Your task to perform on an android device: uninstall "Microsoft Authenticator" Image 0: 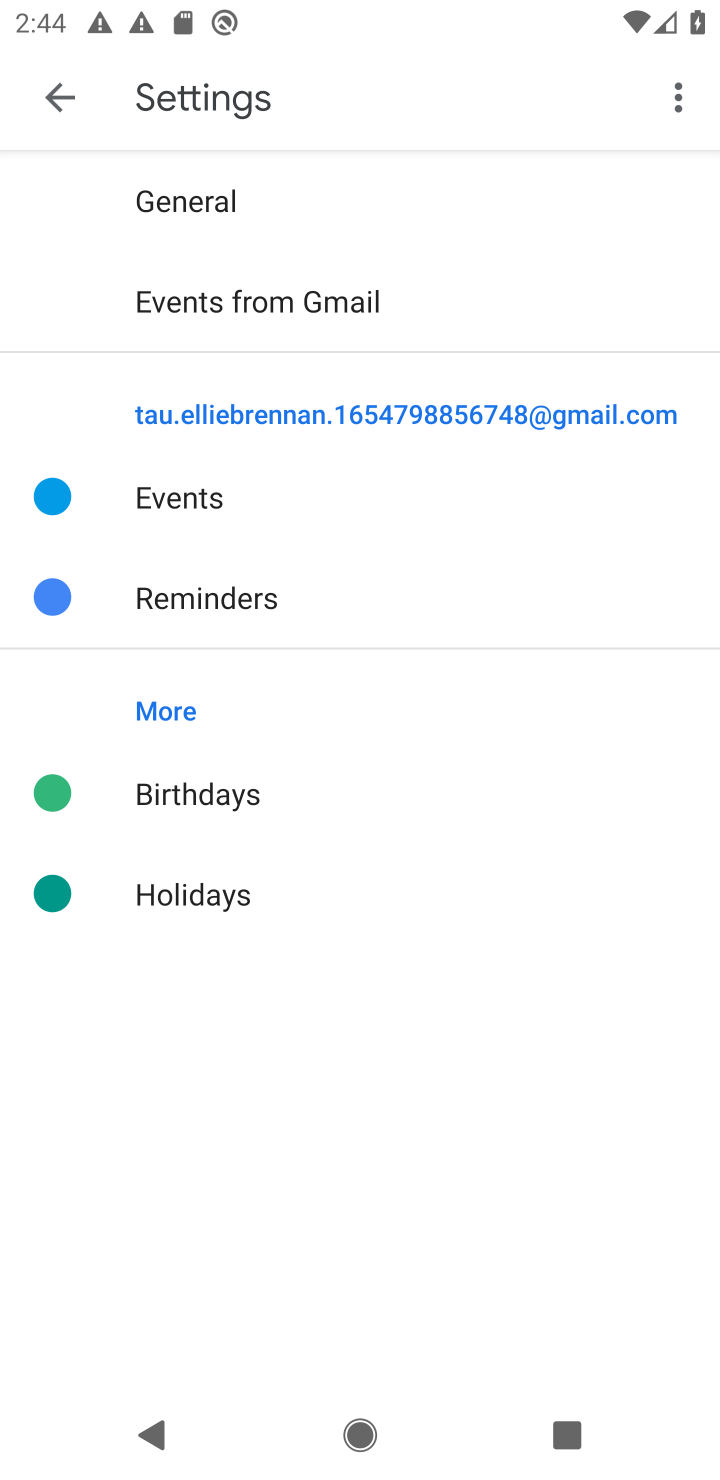
Step 0: press home button
Your task to perform on an android device: uninstall "Microsoft Authenticator" Image 1: 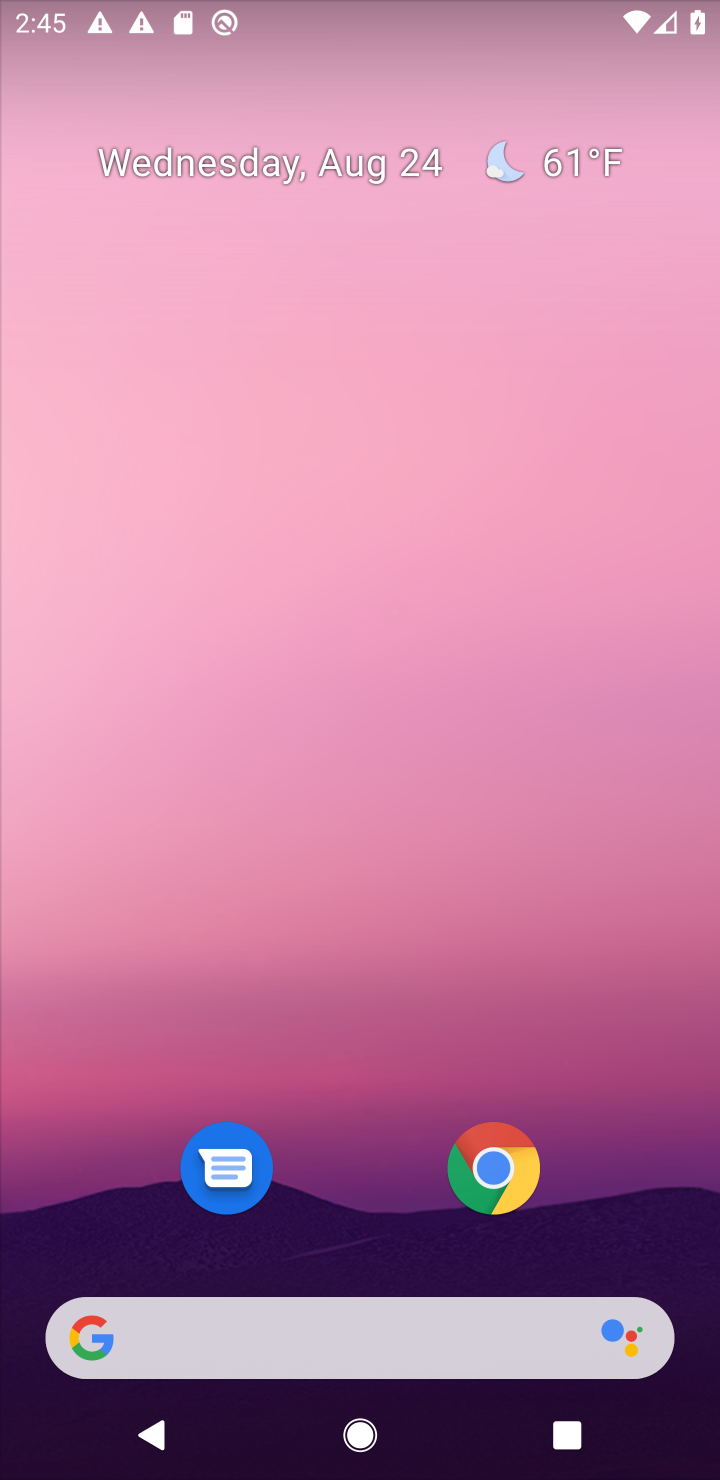
Step 1: drag from (671, 1223) to (608, 133)
Your task to perform on an android device: uninstall "Microsoft Authenticator" Image 2: 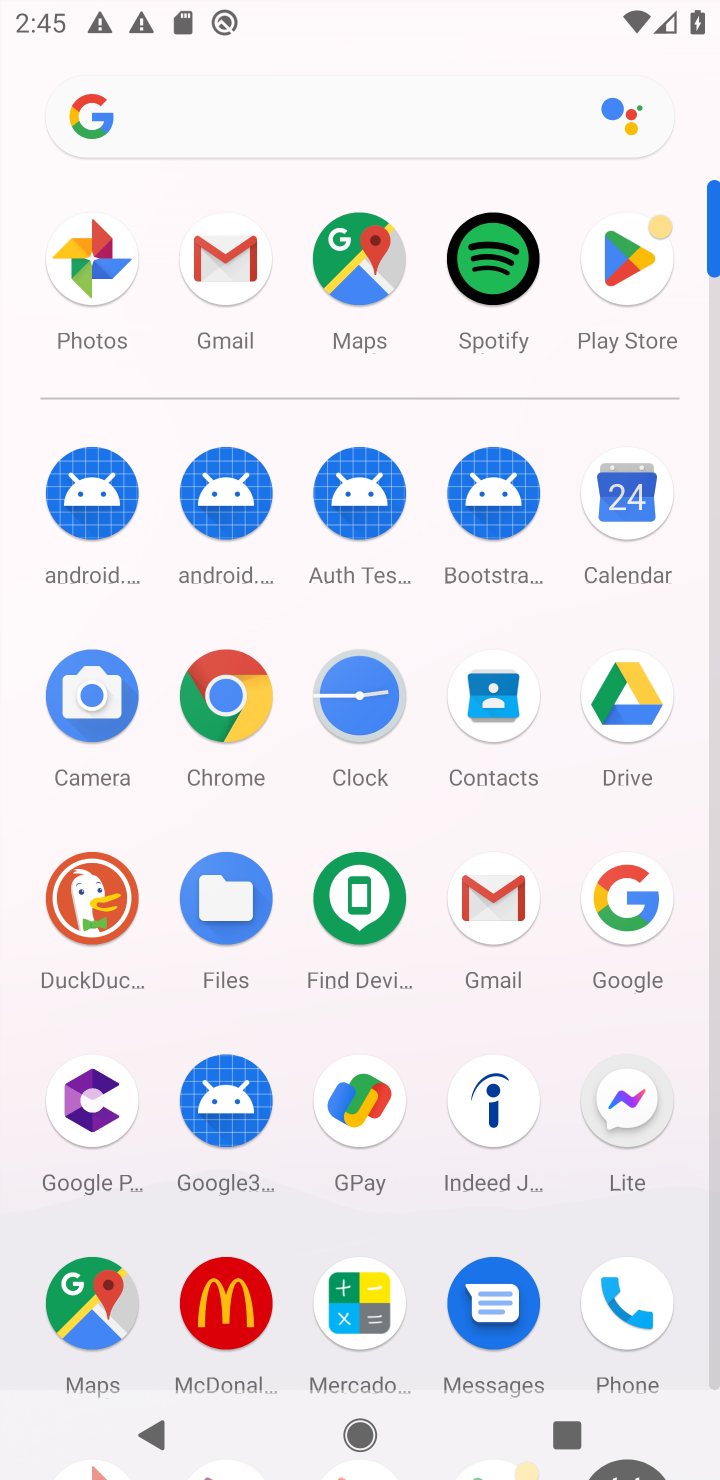
Step 2: click (717, 1291)
Your task to perform on an android device: uninstall "Microsoft Authenticator" Image 3: 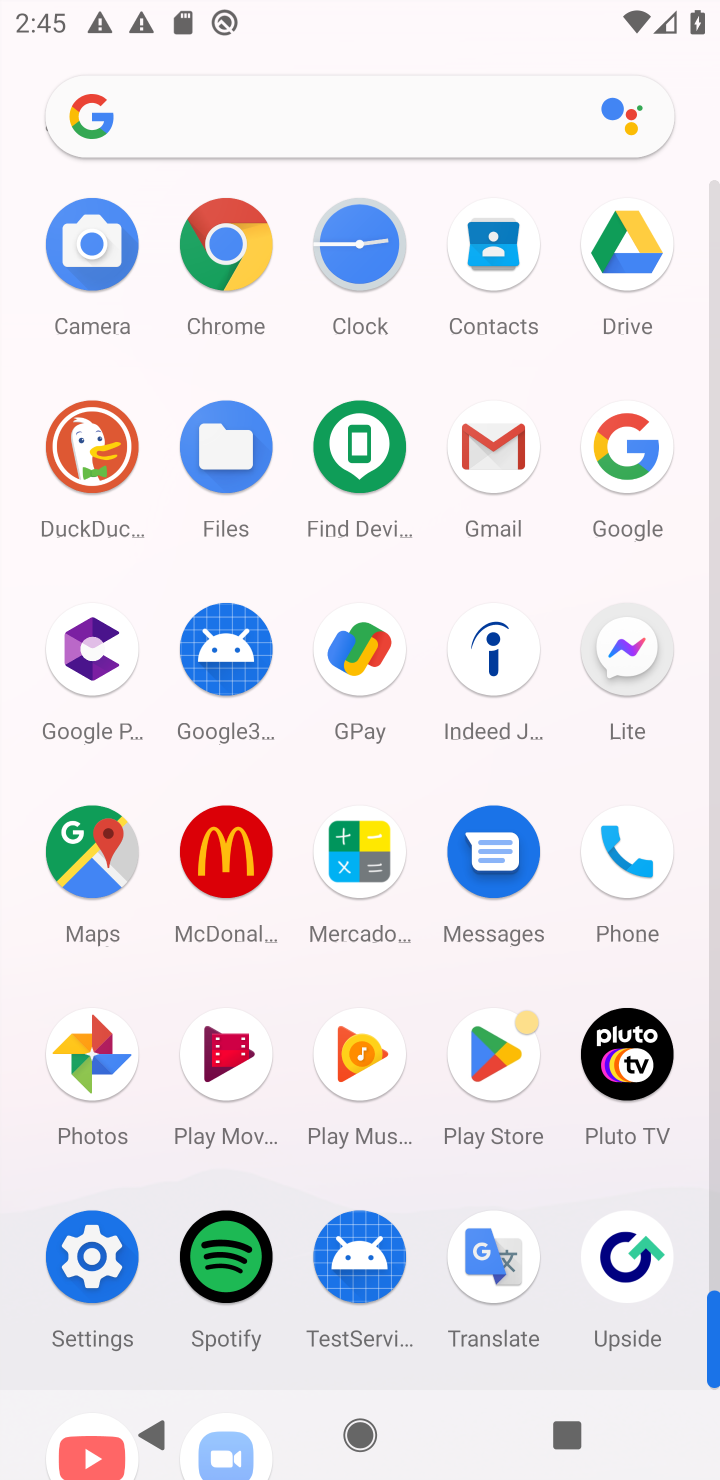
Step 3: click (500, 1057)
Your task to perform on an android device: uninstall "Microsoft Authenticator" Image 4: 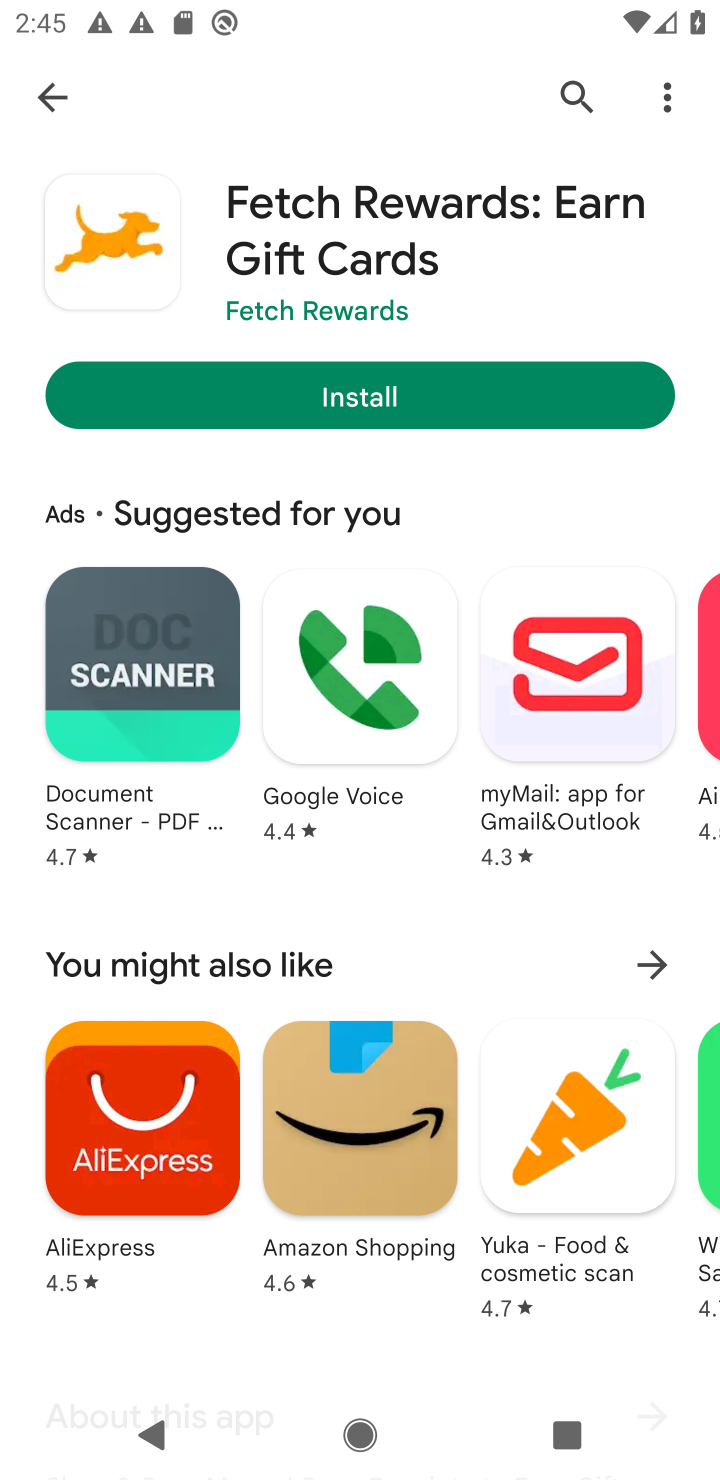
Step 4: click (574, 93)
Your task to perform on an android device: uninstall "Microsoft Authenticator" Image 5: 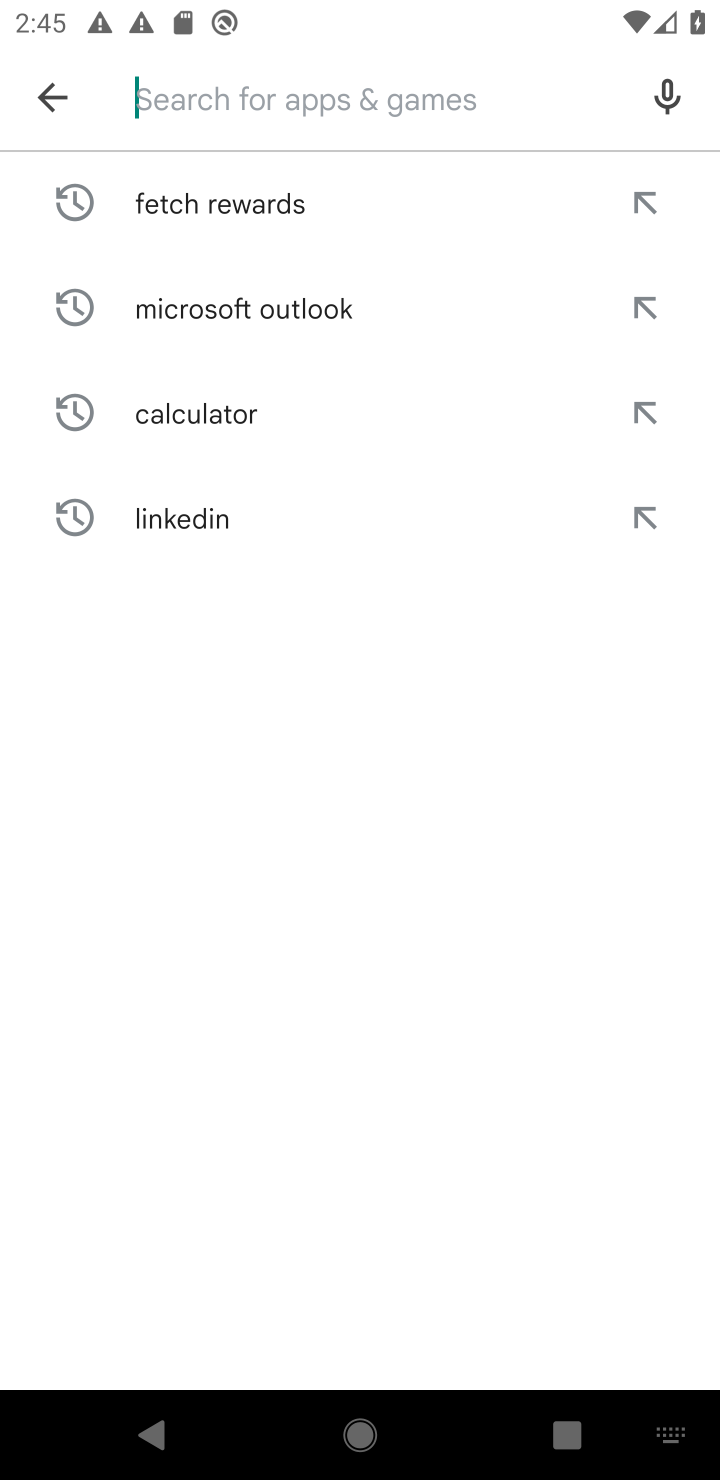
Step 5: type "Microsoft Authenticator"
Your task to perform on an android device: uninstall "Microsoft Authenticator" Image 6: 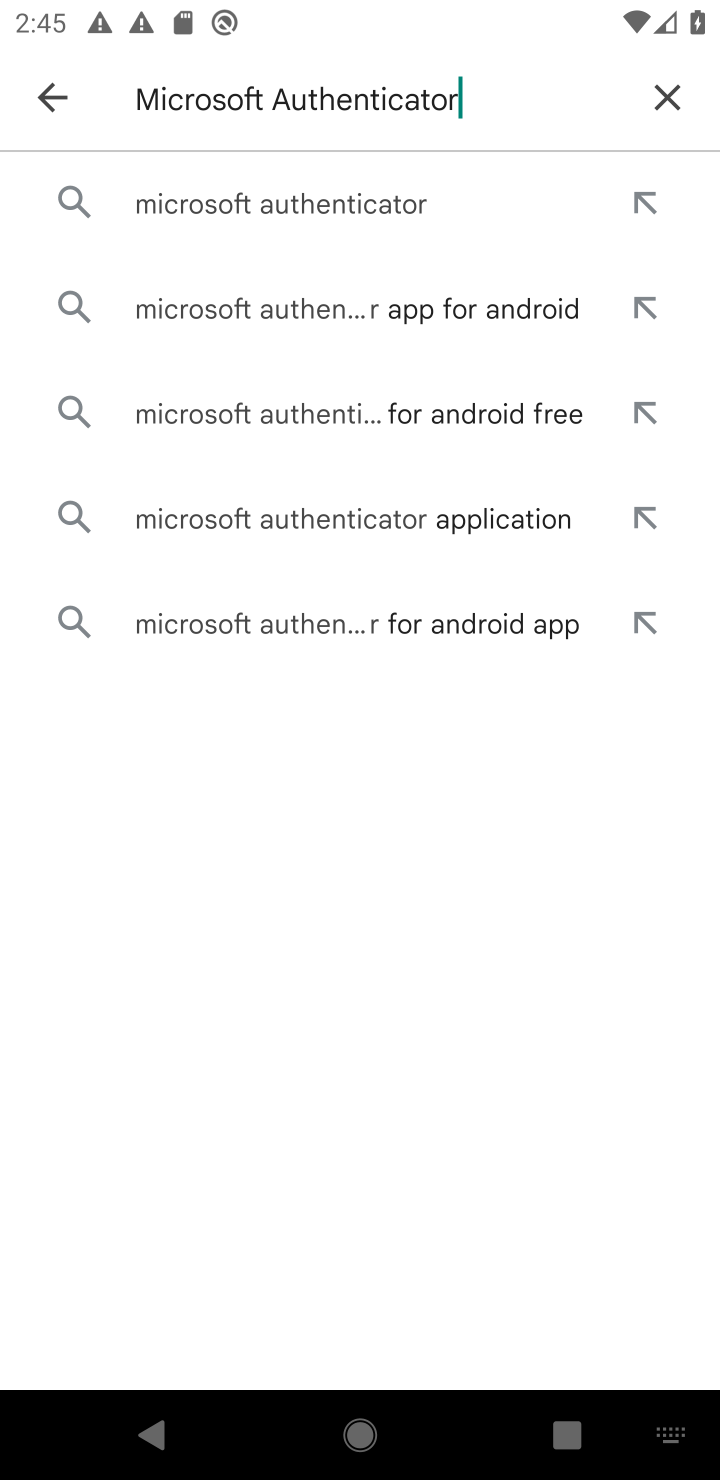
Step 6: click (216, 222)
Your task to perform on an android device: uninstall "Microsoft Authenticator" Image 7: 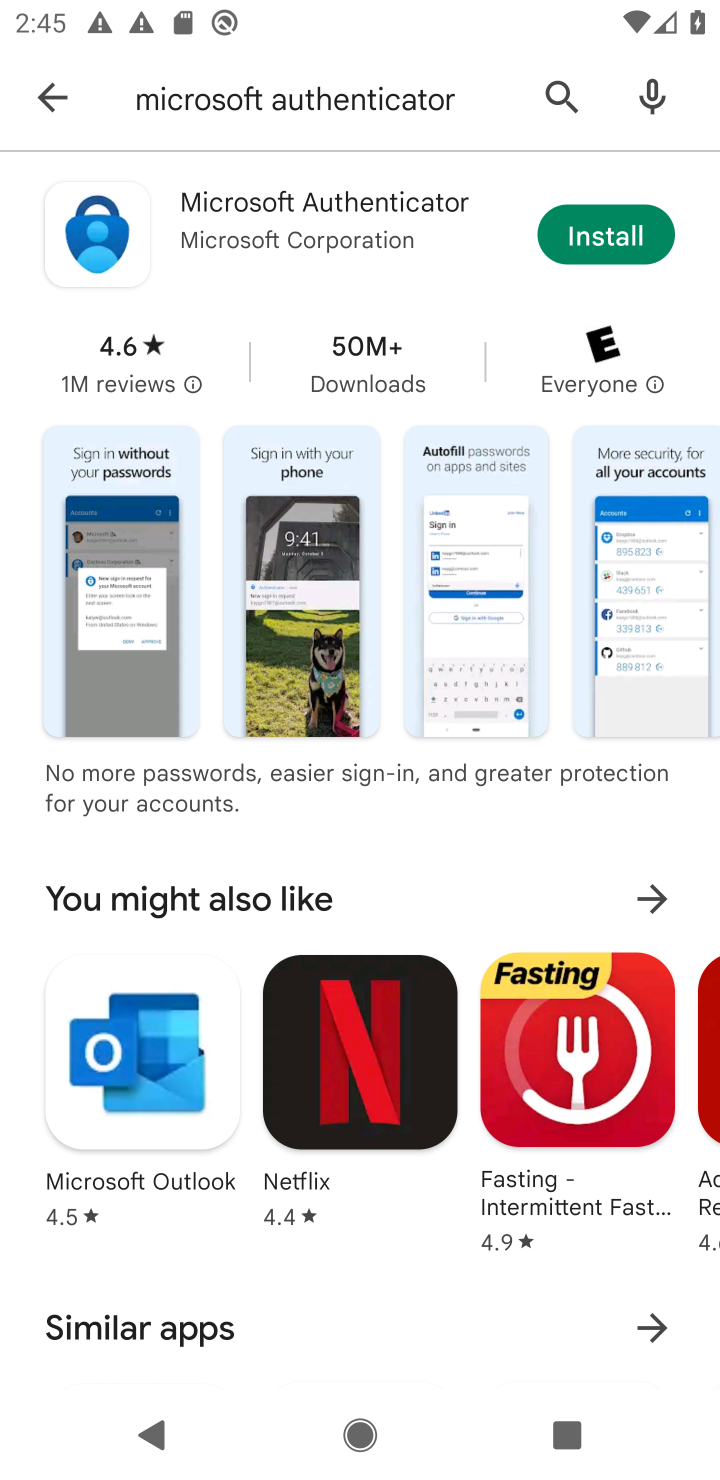
Step 7: click (228, 214)
Your task to perform on an android device: uninstall "Microsoft Authenticator" Image 8: 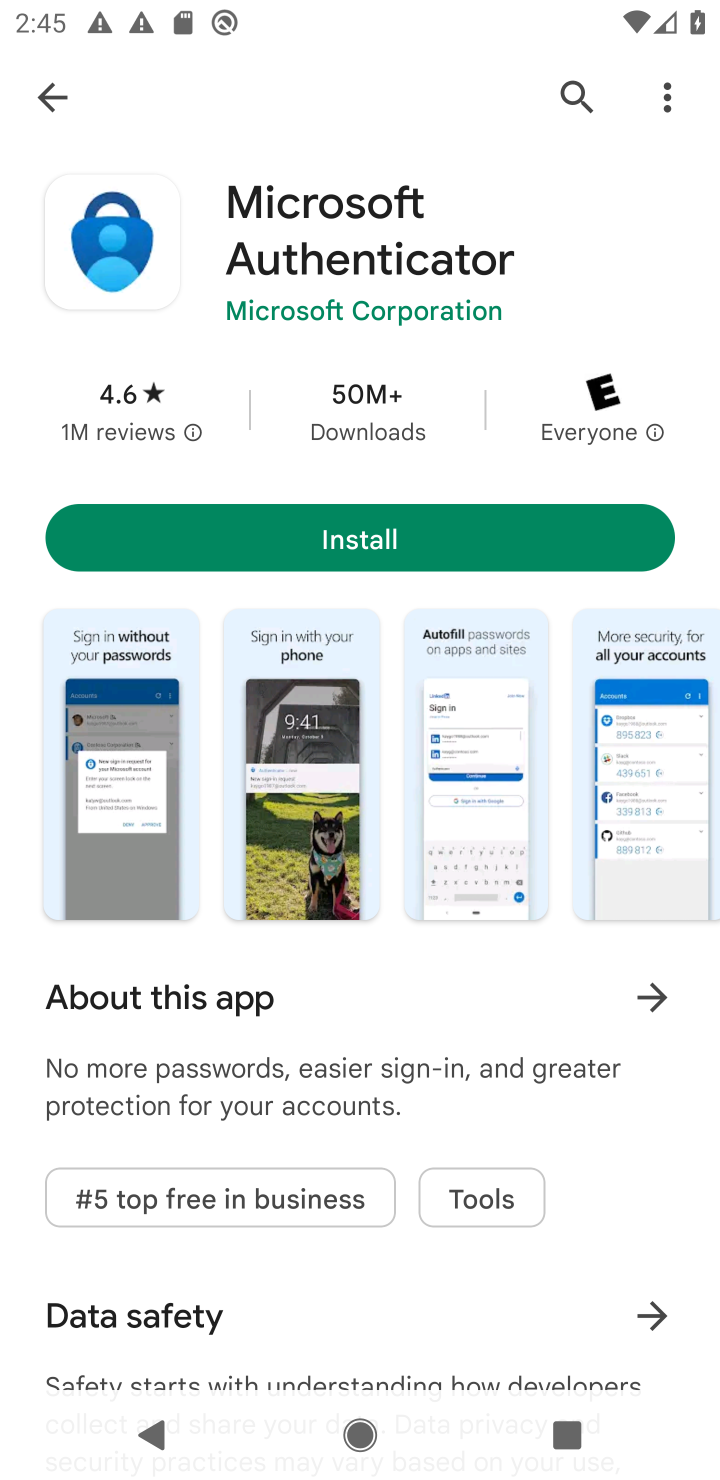
Step 8: task complete